Your task to perform on an android device: toggle notifications settings in the gmail app Image 0: 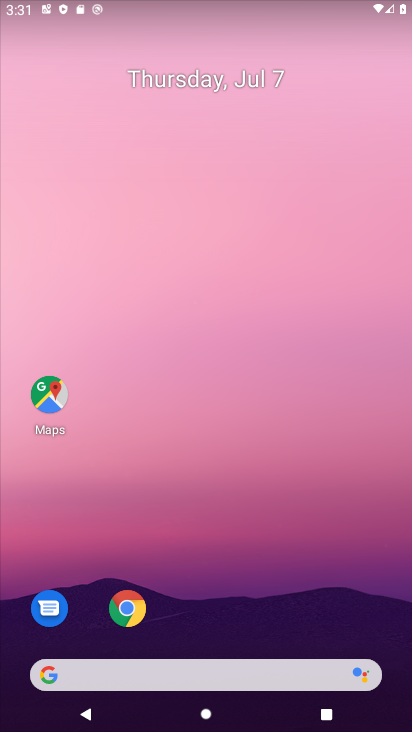
Step 0: drag from (360, 621) to (338, 92)
Your task to perform on an android device: toggle notifications settings in the gmail app Image 1: 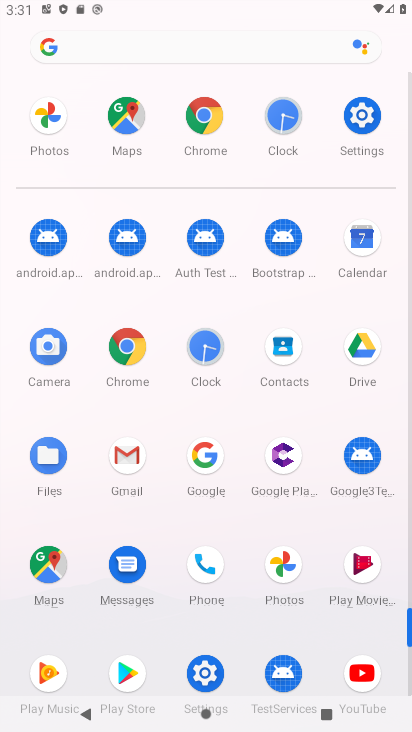
Step 1: click (125, 455)
Your task to perform on an android device: toggle notifications settings in the gmail app Image 2: 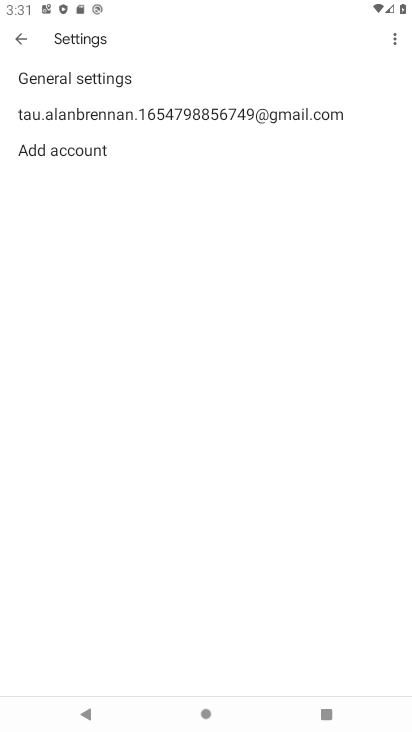
Step 2: press back button
Your task to perform on an android device: toggle notifications settings in the gmail app Image 3: 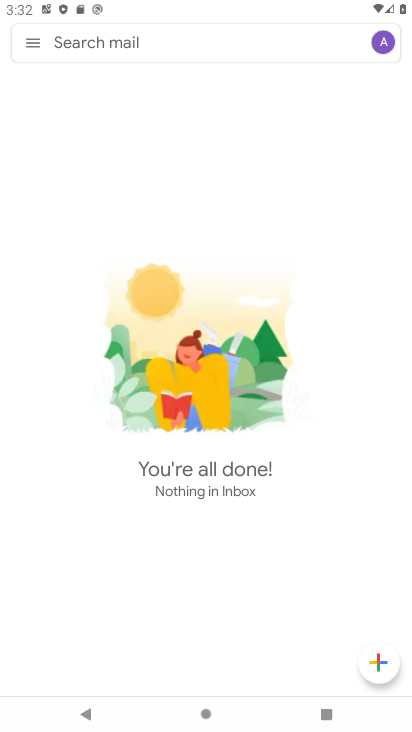
Step 3: click (35, 41)
Your task to perform on an android device: toggle notifications settings in the gmail app Image 4: 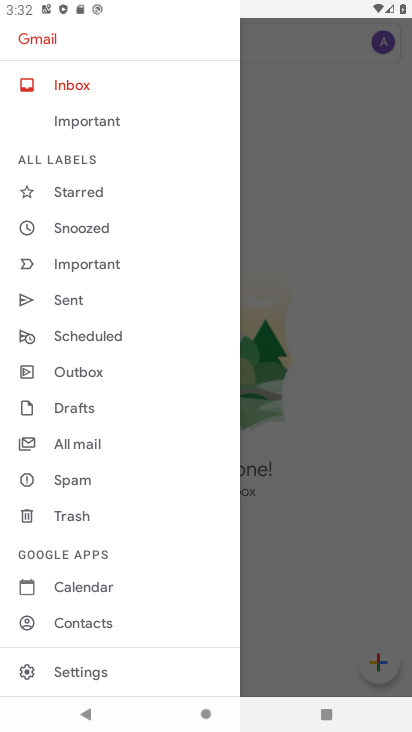
Step 4: click (84, 668)
Your task to perform on an android device: toggle notifications settings in the gmail app Image 5: 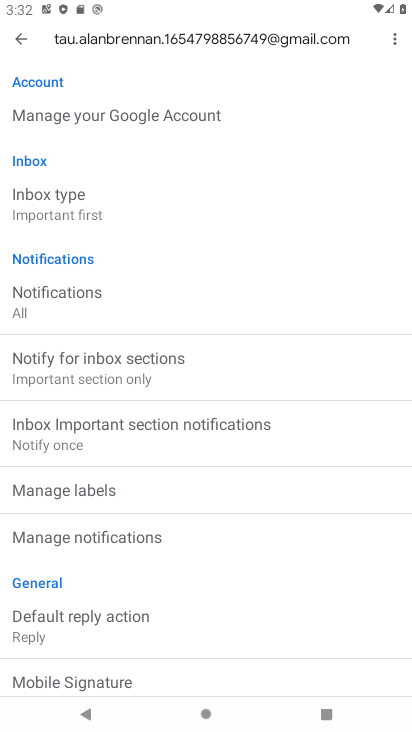
Step 5: click (85, 545)
Your task to perform on an android device: toggle notifications settings in the gmail app Image 6: 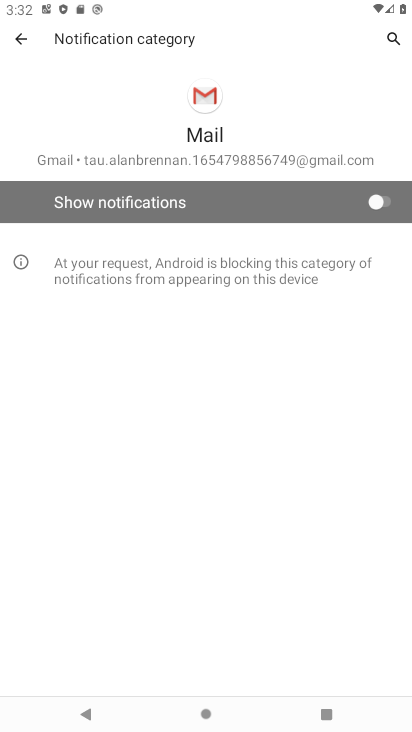
Step 6: click (382, 200)
Your task to perform on an android device: toggle notifications settings in the gmail app Image 7: 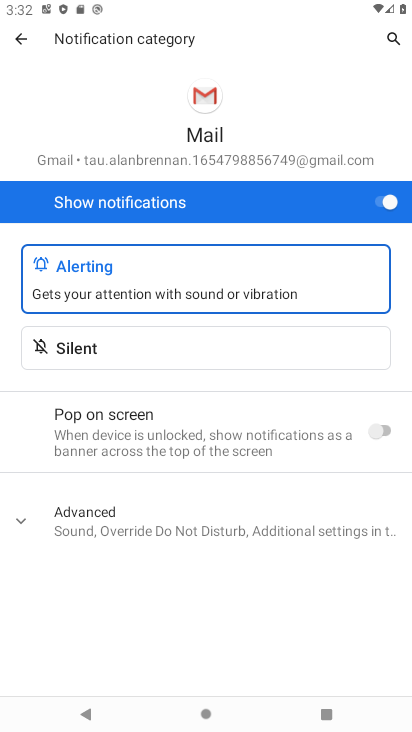
Step 7: task complete